Your task to perform on an android device: Open Google Maps Image 0: 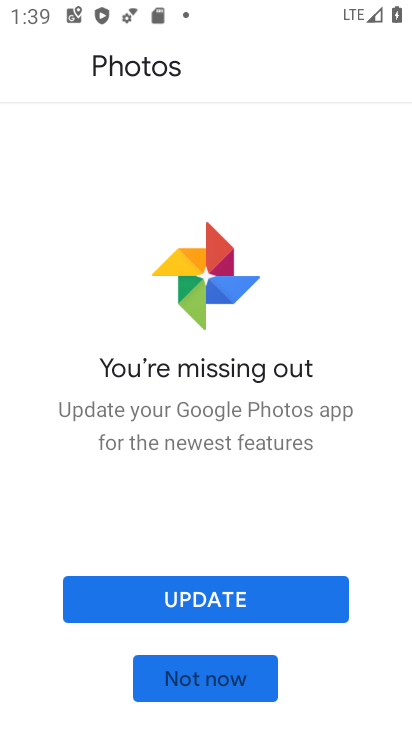
Step 0: press home button
Your task to perform on an android device: Open Google Maps Image 1: 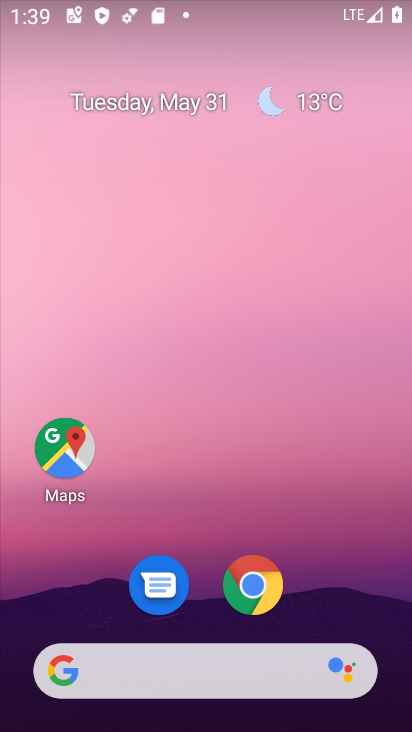
Step 1: click (68, 429)
Your task to perform on an android device: Open Google Maps Image 2: 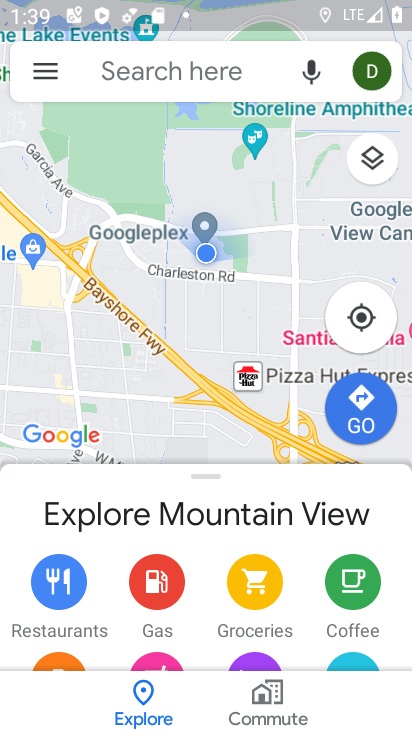
Step 2: task complete